Your task to perform on an android device: turn on translation in the chrome app Image 0: 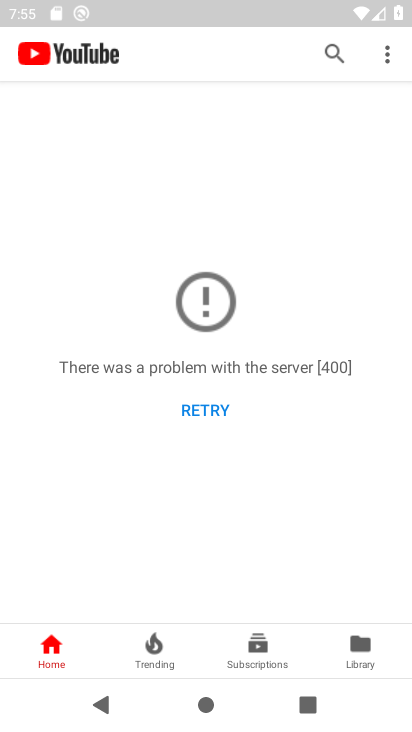
Step 0: press home button
Your task to perform on an android device: turn on translation in the chrome app Image 1: 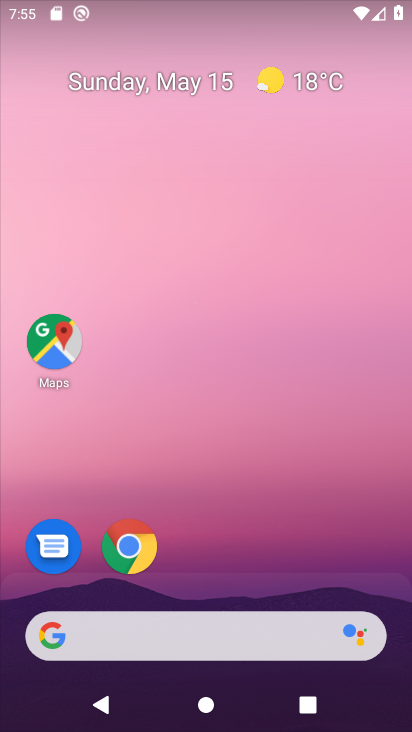
Step 1: click (127, 542)
Your task to perform on an android device: turn on translation in the chrome app Image 2: 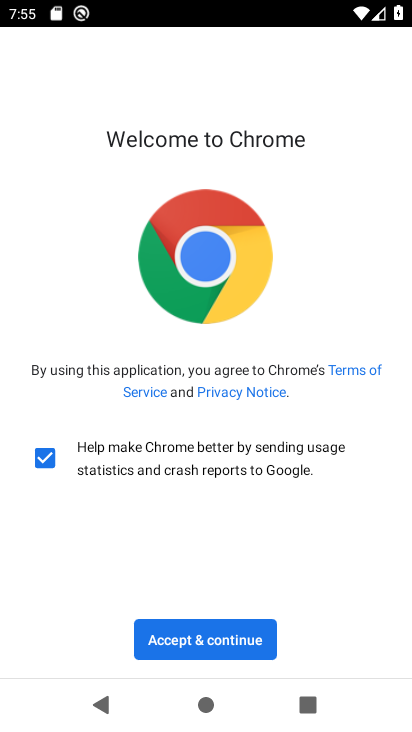
Step 2: click (214, 635)
Your task to perform on an android device: turn on translation in the chrome app Image 3: 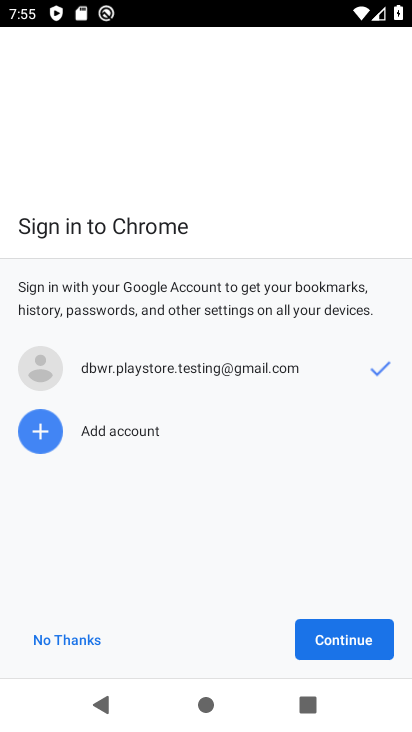
Step 3: click (352, 630)
Your task to perform on an android device: turn on translation in the chrome app Image 4: 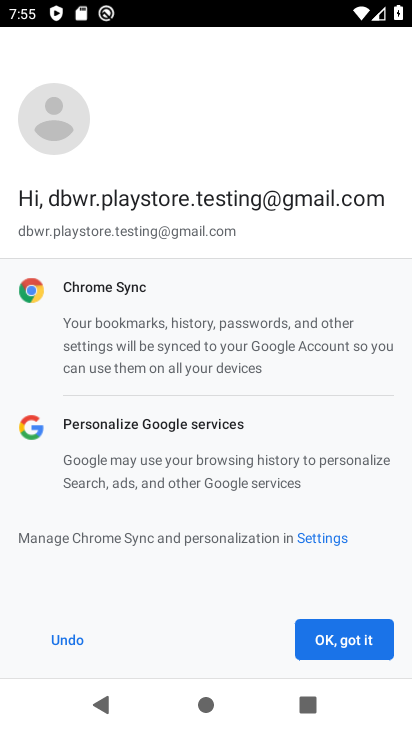
Step 4: click (343, 648)
Your task to perform on an android device: turn on translation in the chrome app Image 5: 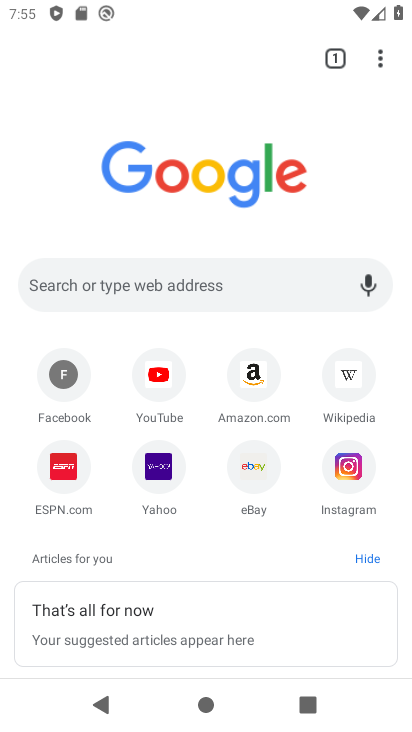
Step 5: drag from (383, 49) to (267, 490)
Your task to perform on an android device: turn on translation in the chrome app Image 6: 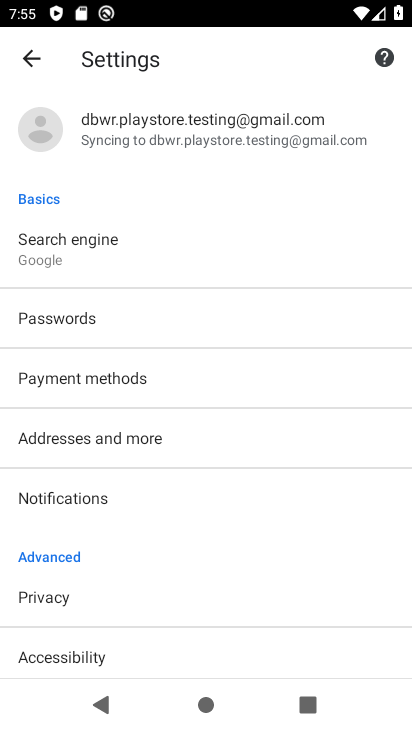
Step 6: drag from (69, 624) to (226, 319)
Your task to perform on an android device: turn on translation in the chrome app Image 7: 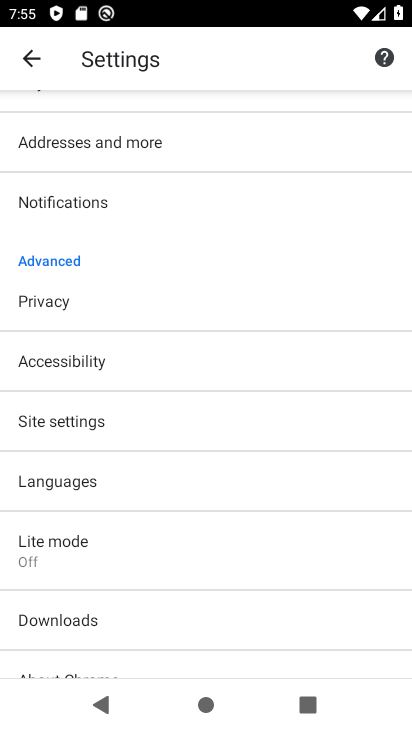
Step 7: click (121, 479)
Your task to perform on an android device: turn on translation in the chrome app Image 8: 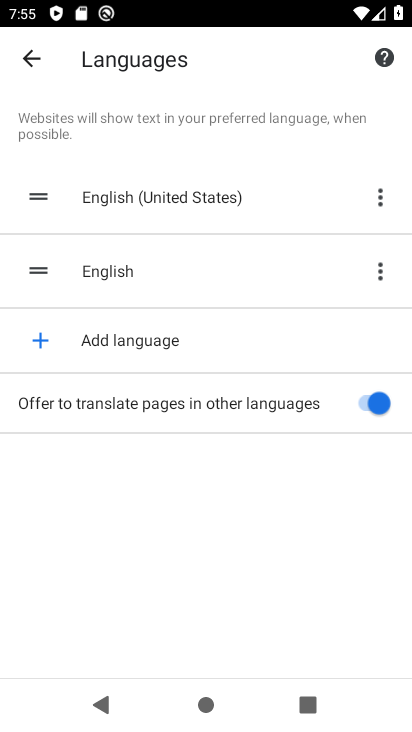
Step 8: task complete